Your task to perform on an android device: turn on the 12-hour format for clock Image 0: 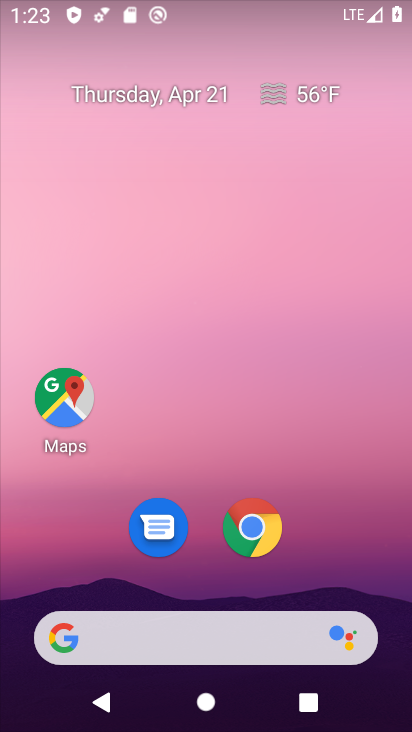
Step 0: drag from (206, 554) to (308, 95)
Your task to perform on an android device: turn on the 12-hour format for clock Image 1: 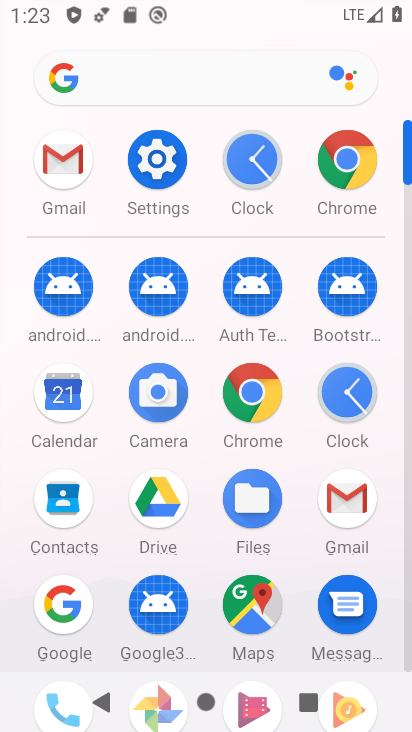
Step 1: click (263, 167)
Your task to perform on an android device: turn on the 12-hour format for clock Image 2: 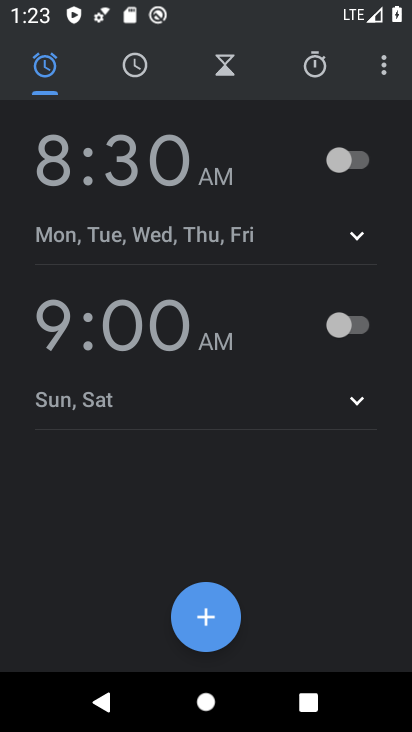
Step 2: click (381, 69)
Your task to perform on an android device: turn on the 12-hour format for clock Image 3: 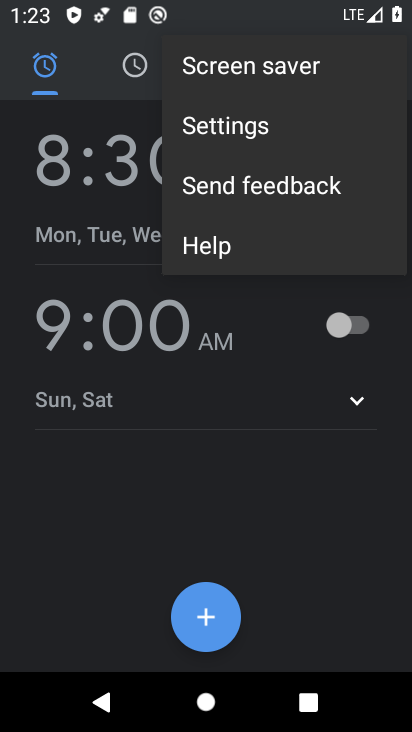
Step 3: click (240, 140)
Your task to perform on an android device: turn on the 12-hour format for clock Image 4: 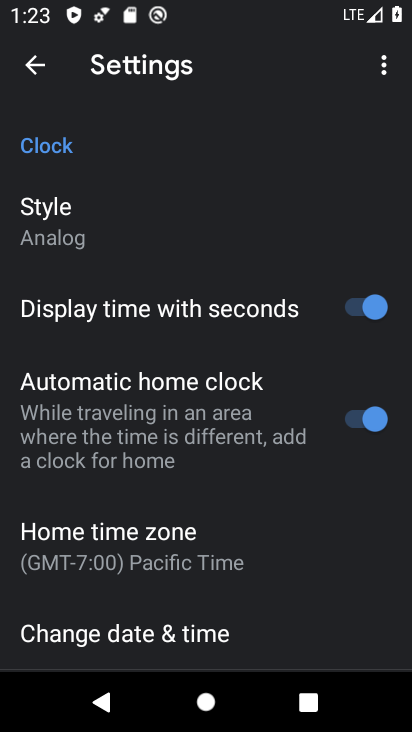
Step 4: click (184, 641)
Your task to perform on an android device: turn on the 12-hour format for clock Image 5: 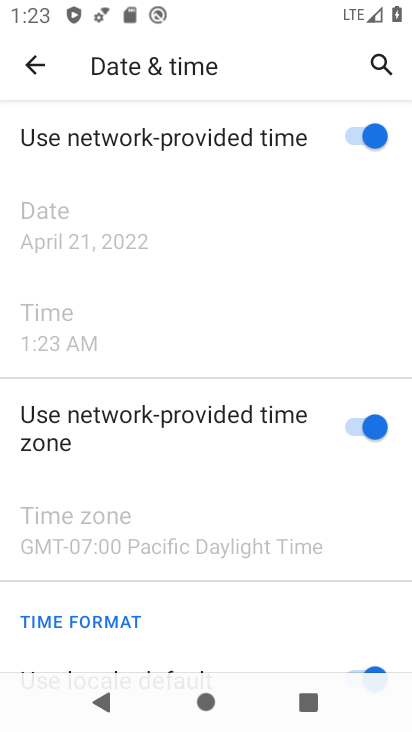
Step 5: task complete